Your task to perform on an android device: toggle wifi Image 0: 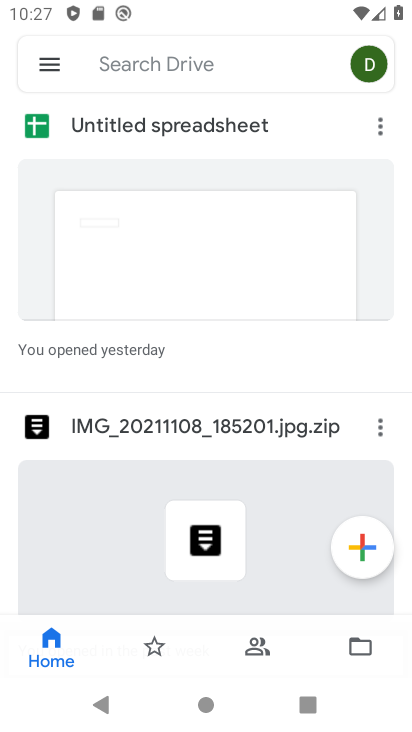
Step 0: press home button
Your task to perform on an android device: toggle wifi Image 1: 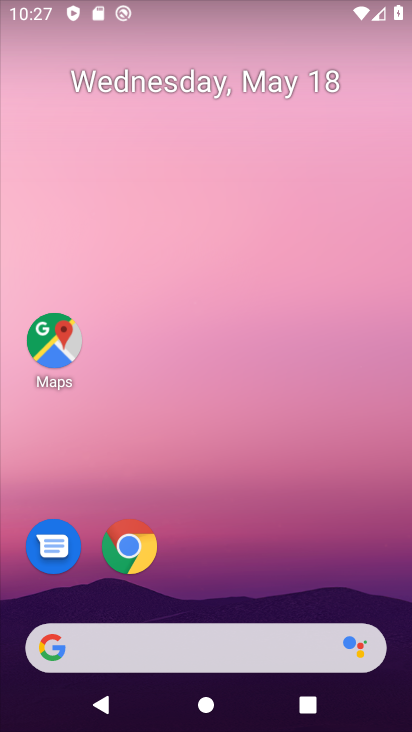
Step 1: drag from (235, 722) to (234, 194)
Your task to perform on an android device: toggle wifi Image 2: 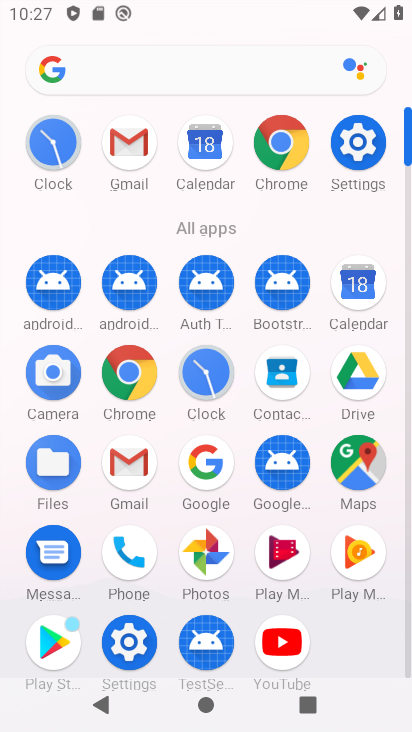
Step 2: click (353, 138)
Your task to perform on an android device: toggle wifi Image 3: 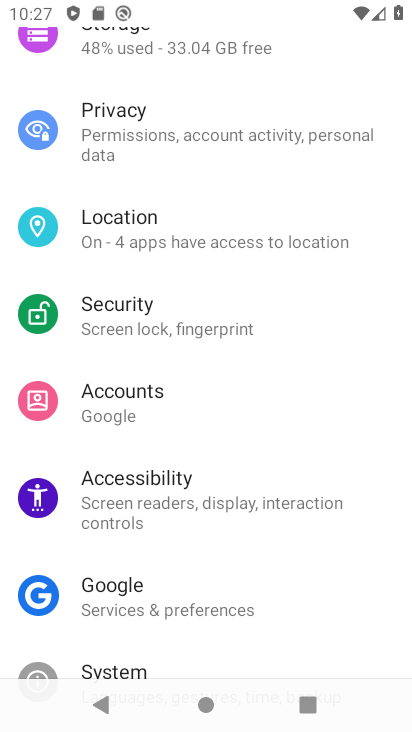
Step 3: drag from (301, 105) to (248, 555)
Your task to perform on an android device: toggle wifi Image 4: 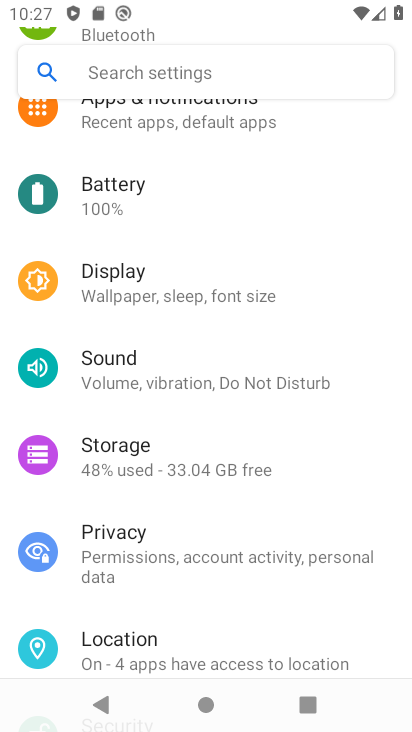
Step 4: drag from (209, 158) to (183, 521)
Your task to perform on an android device: toggle wifi Image 5: 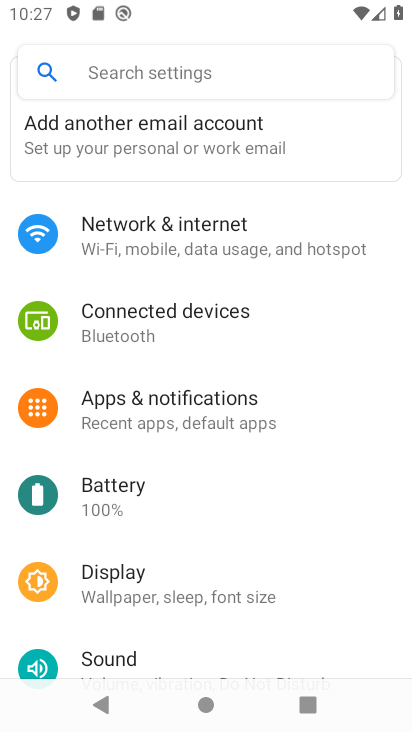
Step 5: click (197, 229)
Your task to perform on an android device: toggle wifi Image 6: 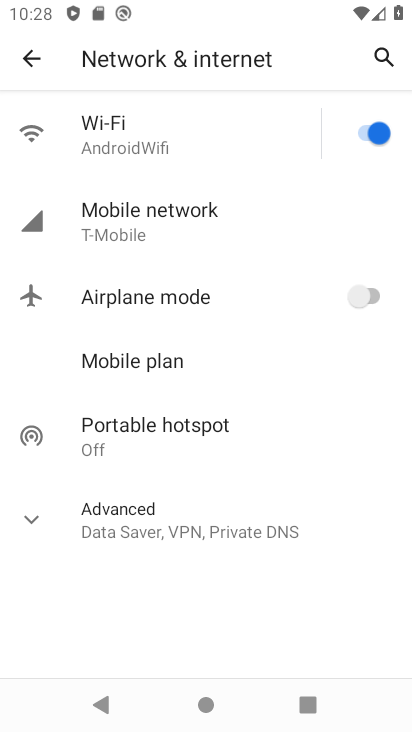
Step 6: click (362, 131)
Your task to perform on an android device: toggle wifi Image 7: 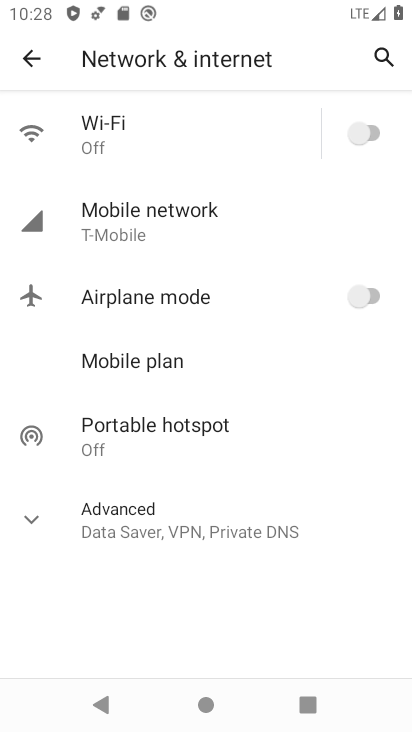
Step 7: task complete